Your task to perform on an android device: change keyboard looks Image 0: 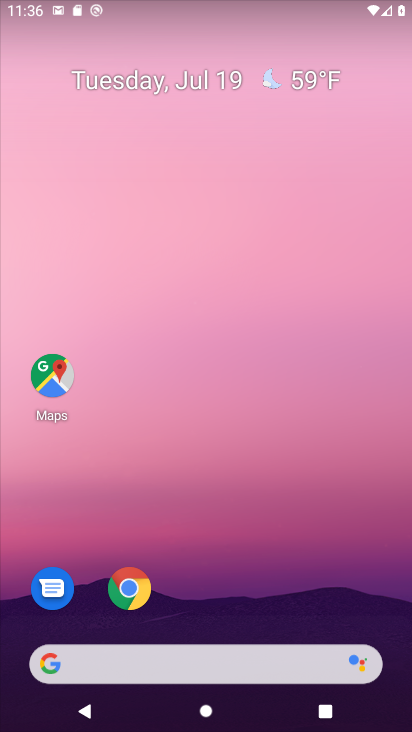
Step 0: click (274, 1)
Your task to perform on an android device: change keyboard looks Image 1: 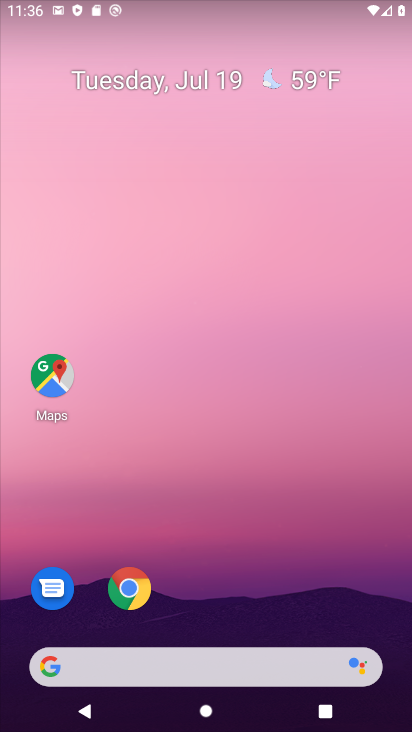
Step 1: drag from (327, 328) to (268, 40)
Your task to perform on an android device: change keyboard looks Image 2: 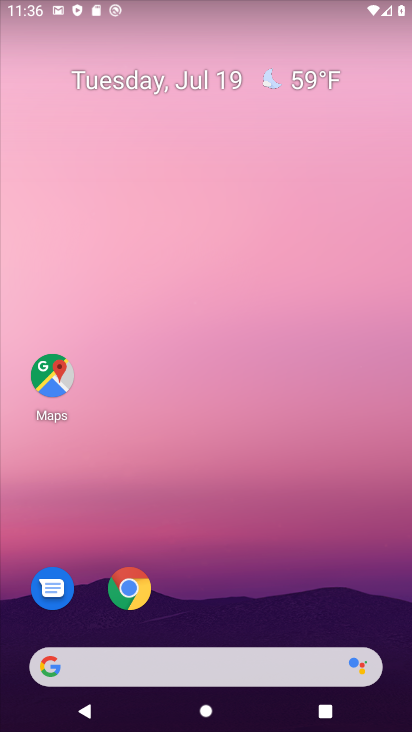
Step 2: drag from (407, 712) to (285, 26)
Your task to perform on an android device: change keyboard looks Image 3: 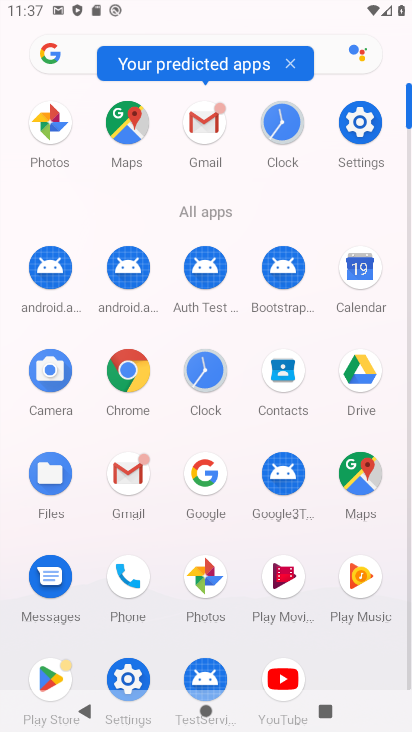
Step 3: click (359, 121)
Your task to perform on an android device: change keyboard looks Image 4: 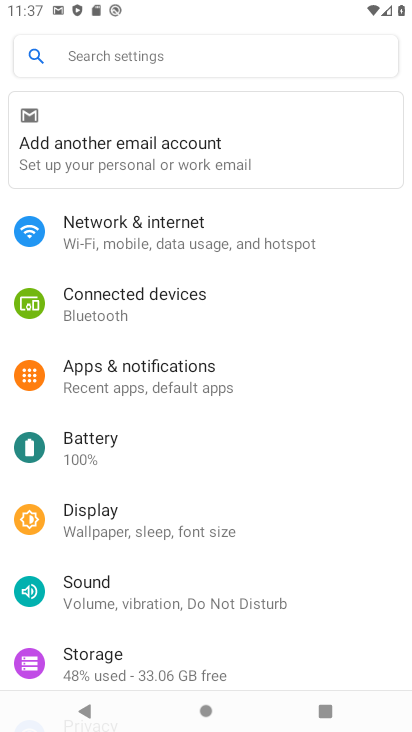
Step 4: drag from (308, 640) to (295, 188)
Your task to perform on an android device: change keyboard looks Image 5: 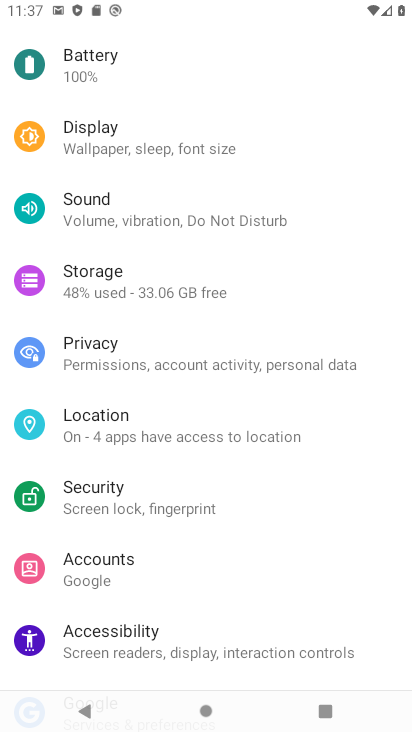
Step 5: drag from (223, 588) to (284, 224)
Your task to perform on an android device: change keyboard looks Image 6: 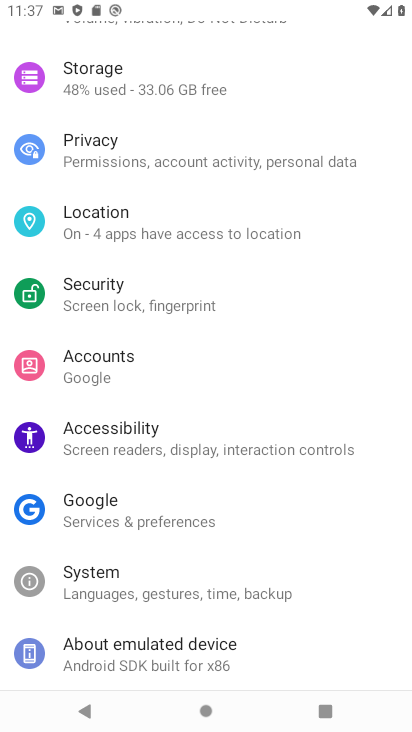
Step 6: click (130, 586)
Your task to perform on an android device: change keyboard looks Image 7: 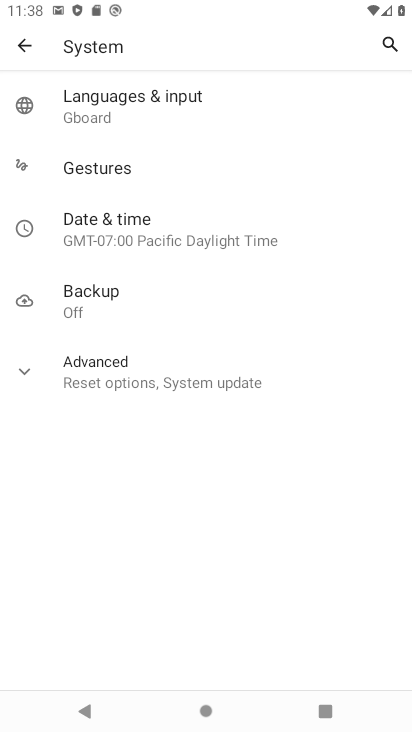
Step 7: click (89, 109)
Your task to perform on an android device: change keyboard looks Image 8: 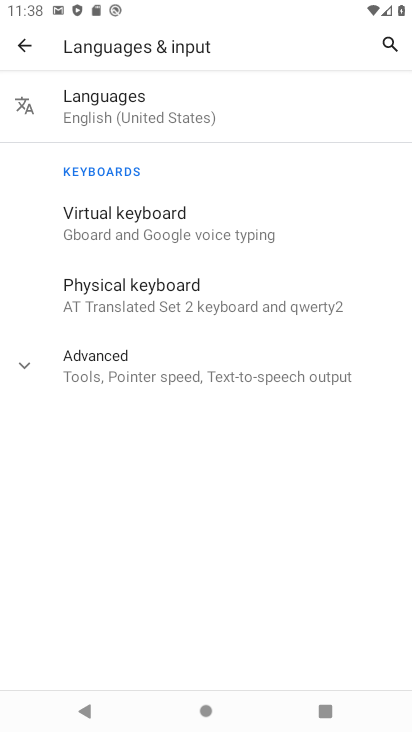
Step 8: click (89, 214)
Your task to perform on an android device: change keyboard looks Image 9: 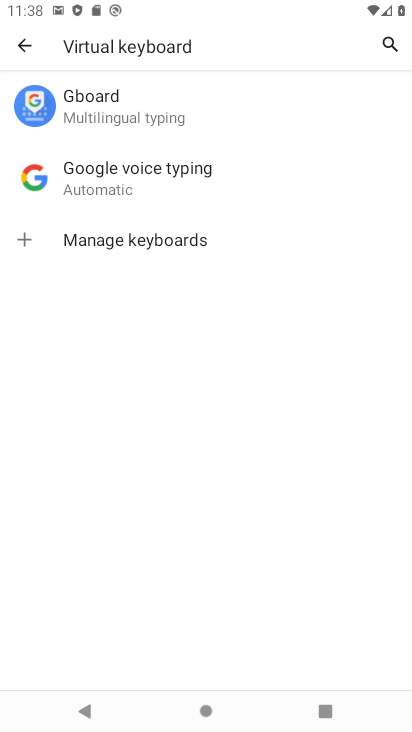
Step 9: click (90, 115)
Your task to perform on an android device: change keyboard looks Image 10: 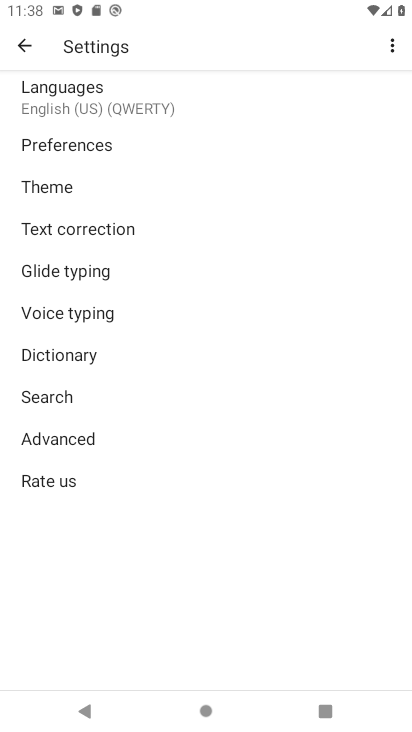
Step 10: click (53, 182)
Your task to perform on an android device: change keyboard looks Image 11: 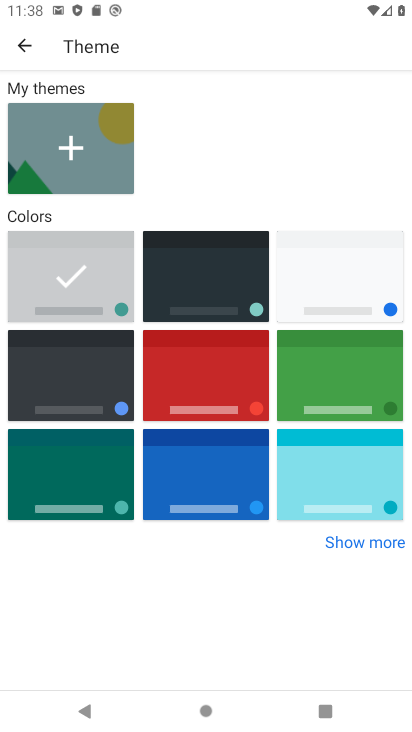
Step 11: click (191, 371)
Your task to perform on an android device: change keyboard looks Image 12: 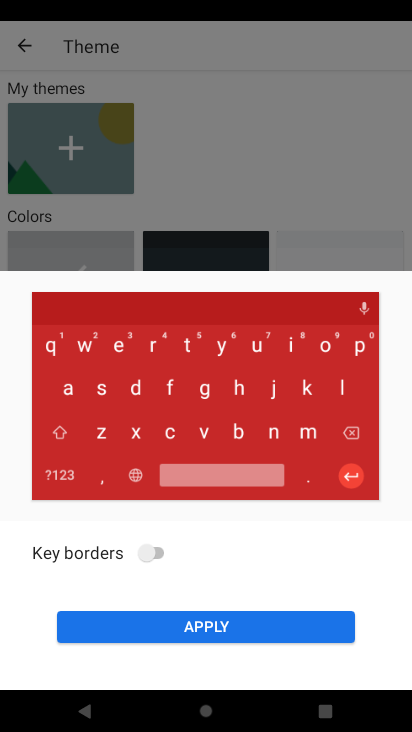
Step 12: click (226, 617)
Your task to perform on an android device: change keyboard looks Image 13: 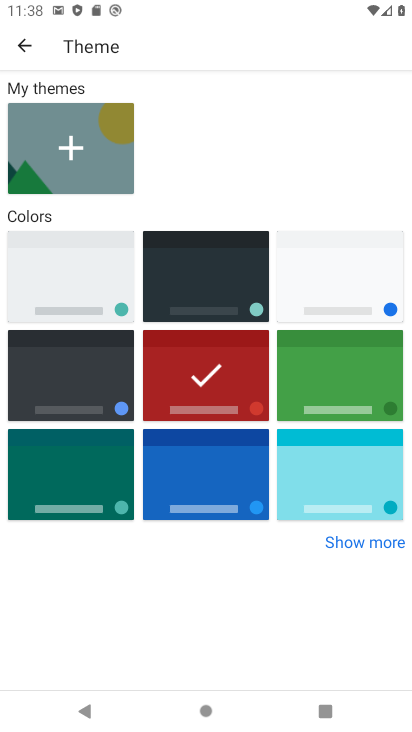
Step 13: task complete